Your task to perform on an android device: find which apps use the phone's location Image 0: 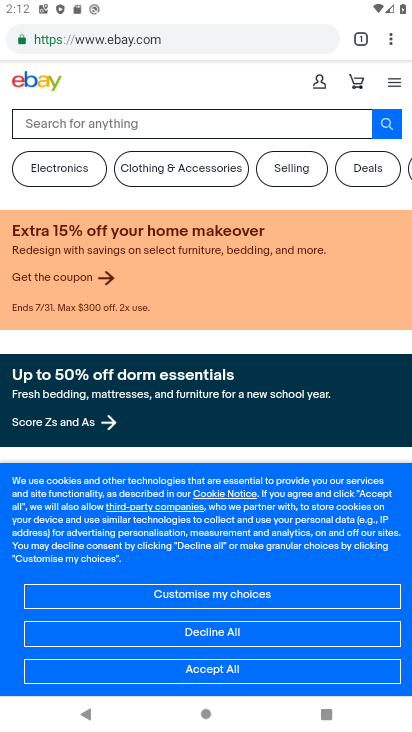
Step 0: click (391, 49)
Your task to perform on an android device: find which apps use the phone's location Image 1: 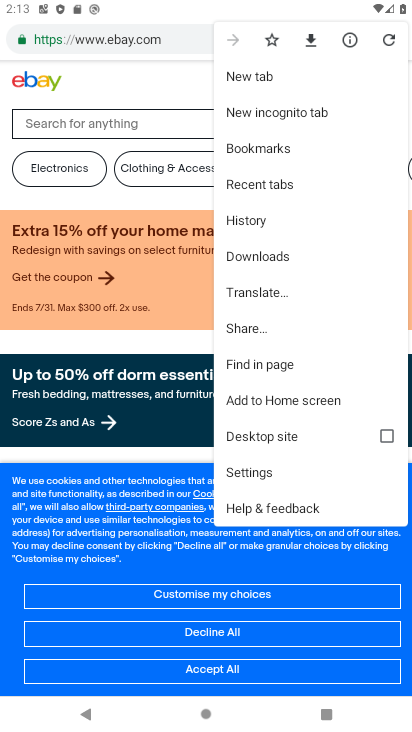
Step 1: press home button
Your task to perform on an android device: find which apps use the phone's location Image 2: 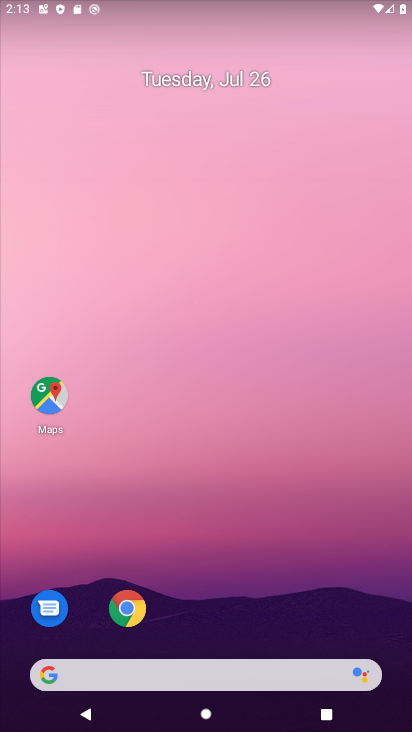
Step 2: drag from (242, 648) to (250, 154)
Your task to perform on an android device: find which apps use the phone's location Image 3: 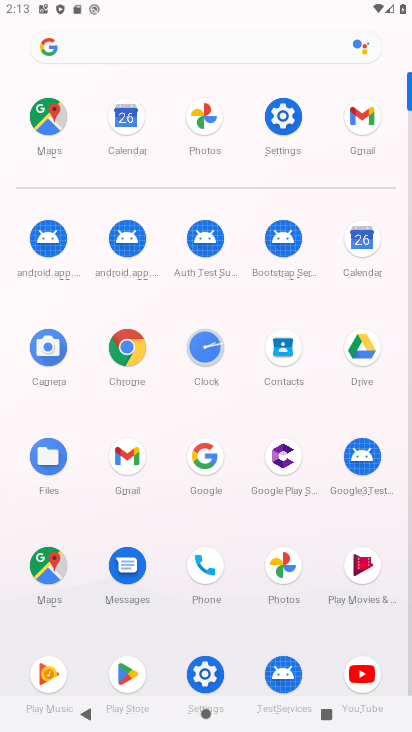
Step 3: click (275, 101)
Your task to perform on an android device: find which apps use the phone's location Image 4: 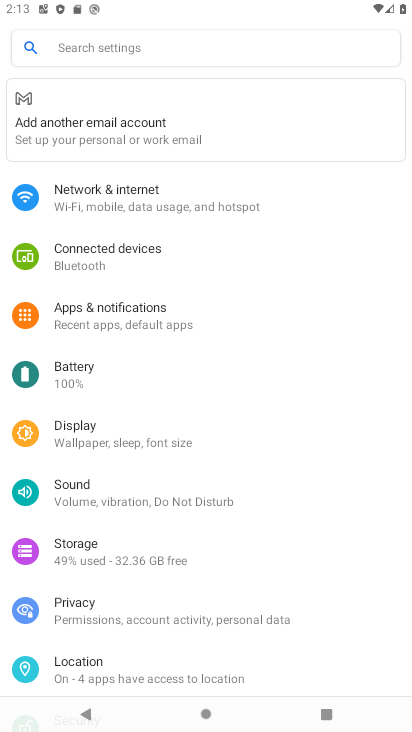
Step 4: click (94, 652)
Your task to perform on an android device: find which apps use the phone's location Image 5: 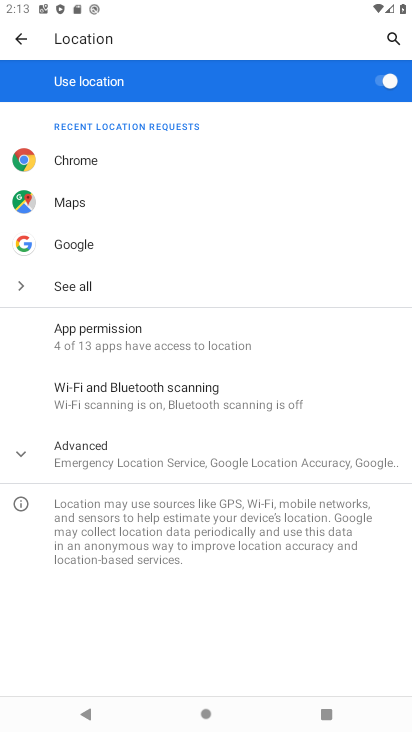
Step 5: task complete